Your task to perform on an android device: allow notifications from all sites in the chrome app Image 0: 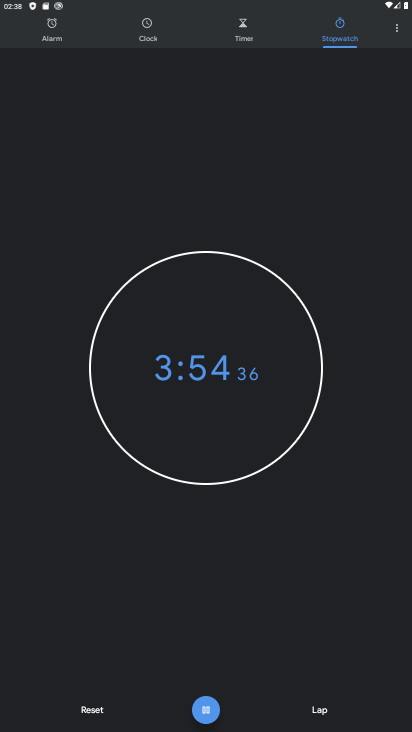
Step 0: press home button
Your task to perform on an android device: allow notifications from all sites in the chrome app Image 1: 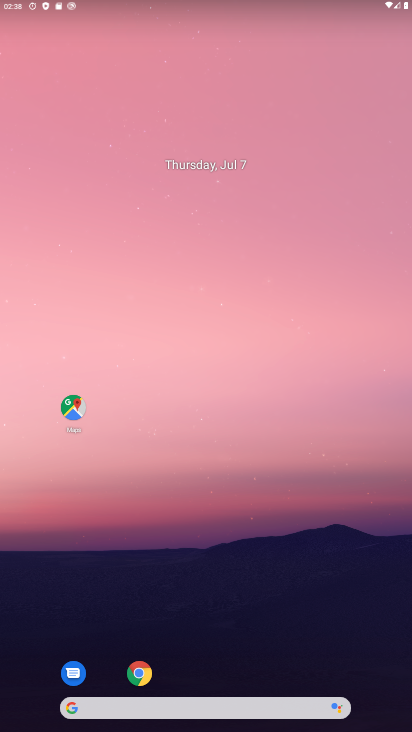
Step 1: drag from (211, 669) to (211, 223)
Your task to perform on an android device: allow notifications from all sites in the chrome app Image 2: 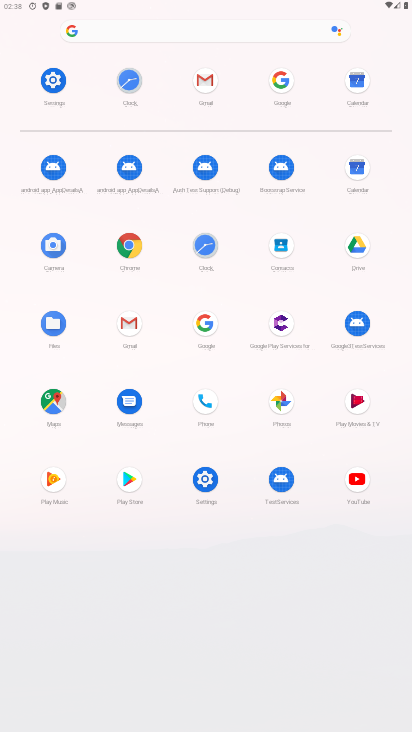
Step 2: click (118, 238)
Your task to perform on an android device: allow notifications from all sites in the chrome app Image 3: 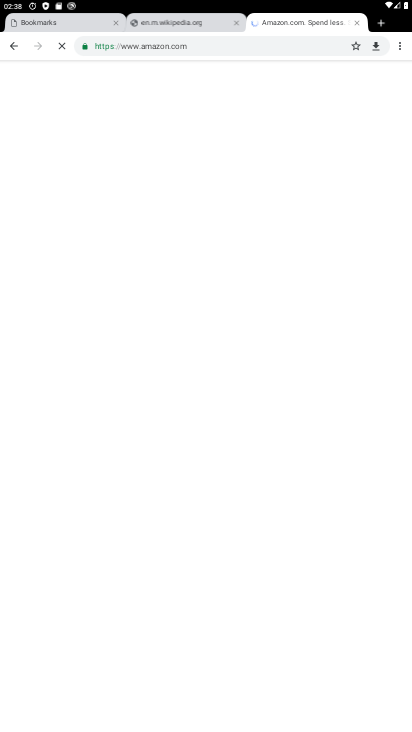
Step 3: click (394, 50)
Your task to perform on an android device: allow notifications from all sites in the chrome app Image 4: 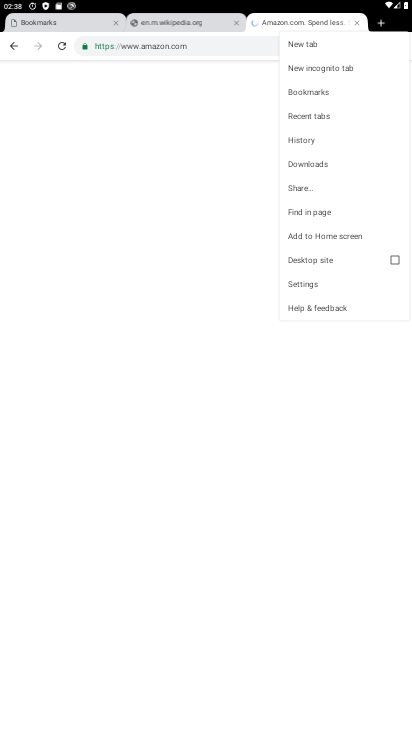
Step 4: click (317, 282)
Your task to perform on an android device: allow notifications from all sites in the chrome app Image 5: 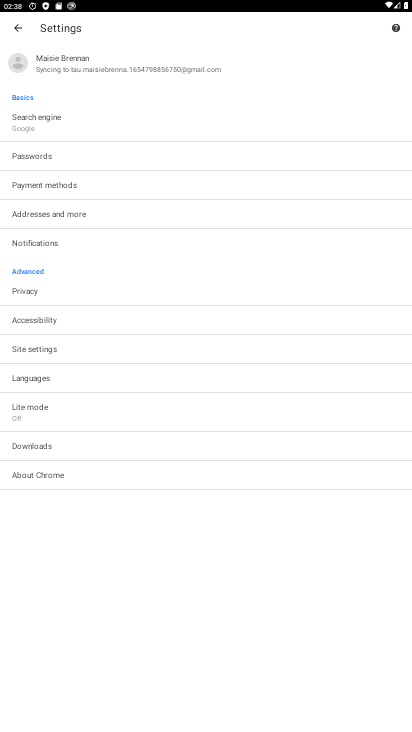
Step 5: click (55, 351)
Your task to perform on an android device: allow notifications from all sites in the chrome app Image 6: 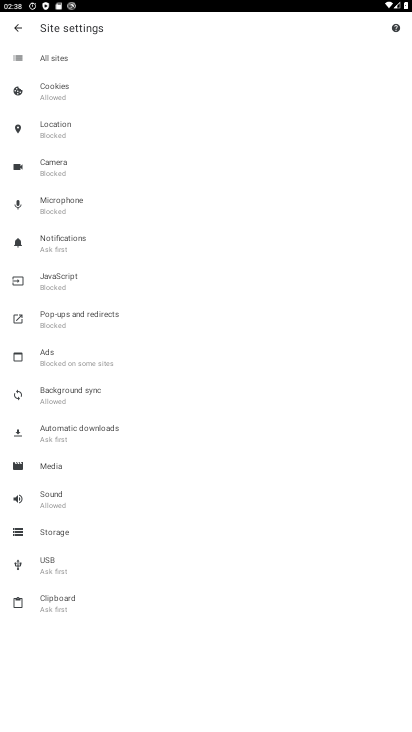
Step 6: click (71, 59)
Your task to perform on an android device: allow notifications from all sites in the chrome app Image 7: 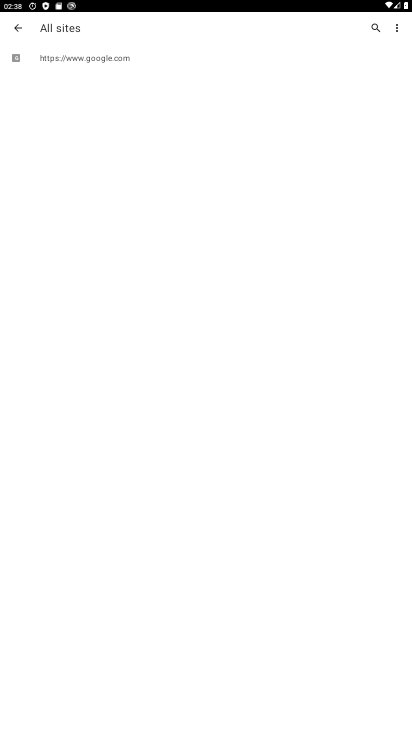
Step 7: click (121, 55)
Your task to perform on an android device: allow notifications from all sites in the chrome app Image 8: 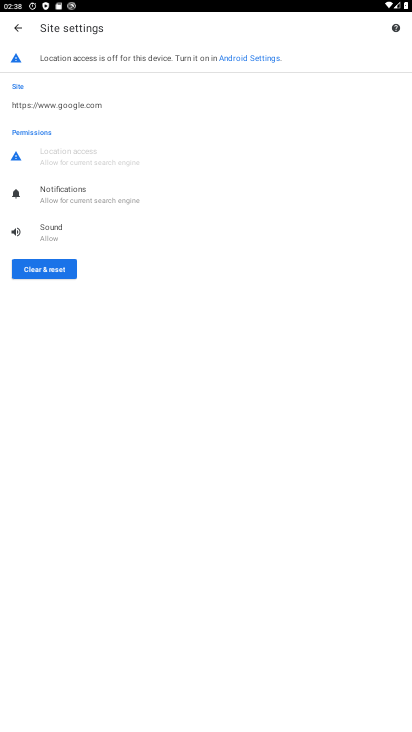
Step 8: click (111, 187)
Your task to perform on an android device: allow notifications from all sites in the chrome app Image 9: 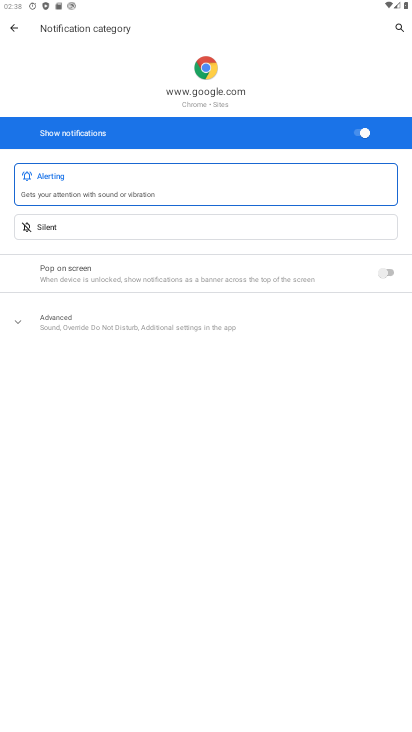
Step 9: task complete